Your task to perform on an android device: What is the recent news? Image 0: 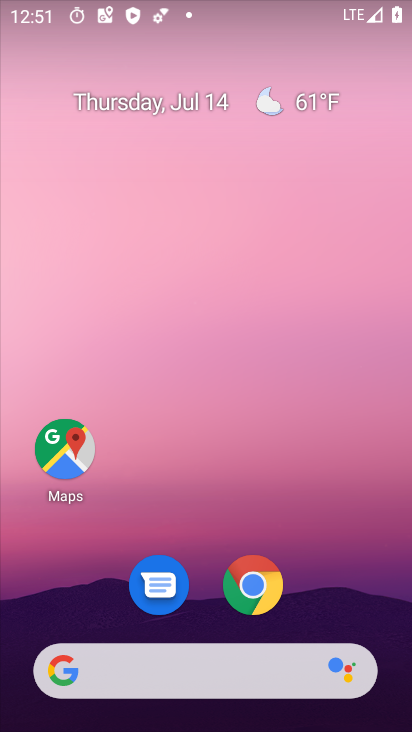
Step 0: click (266, 681)
Your task to perform on an android device: What is the recent news? Image 1: 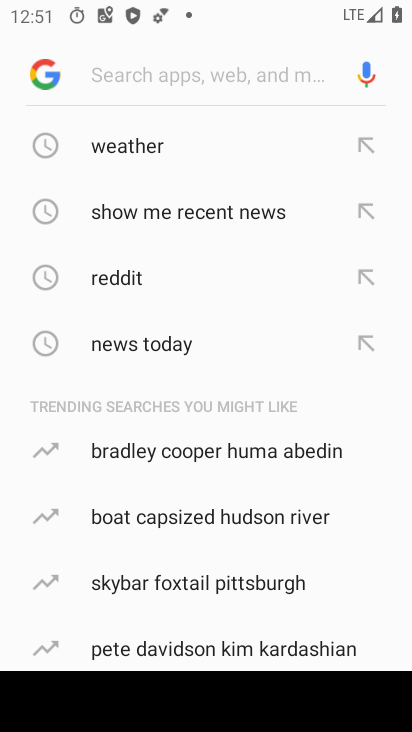
Step 1: click (173, 335)
Your task to perform on an android device: What is the recent news? Image 2: 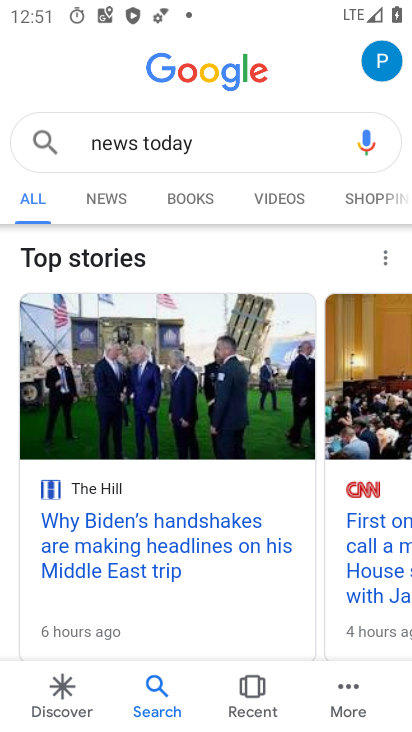
Step 2: click (244, 537)
Your task to perform on an android device: What is the recent news? Image 3: 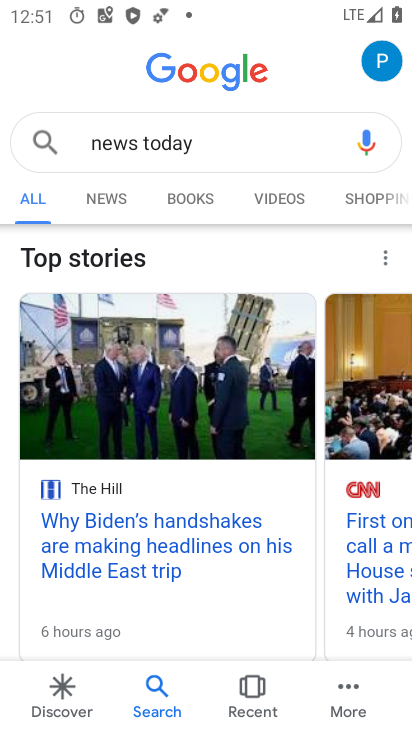
Step 3: click (193, 520)
Your task to perform on an android device: What is the recent news? Image 4: 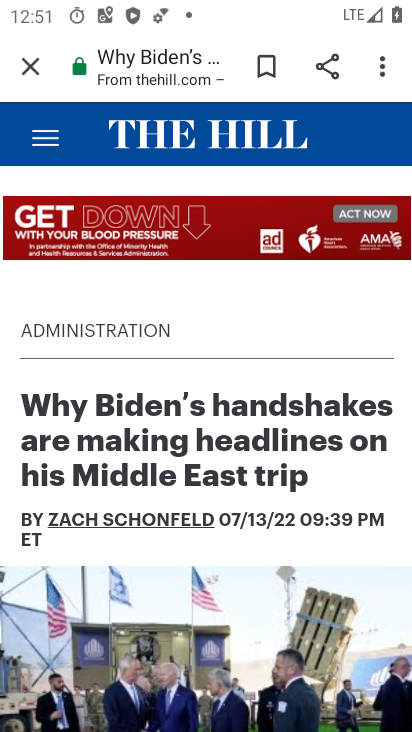
Step 4: task complete